Your task to perform on an android device: Play the last video I watched on Youtube Image 0: 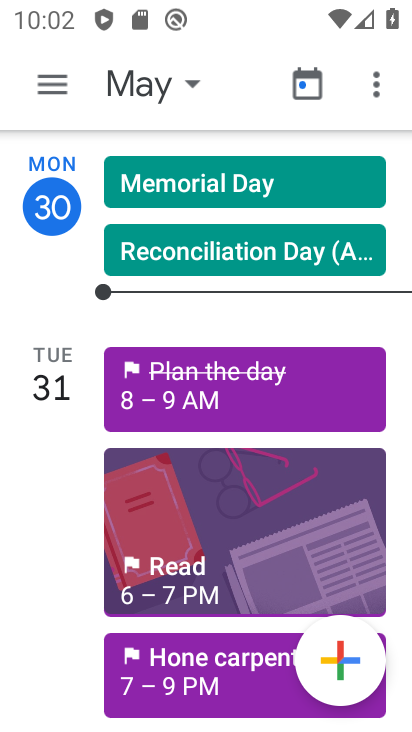
Step 0: press home button
Your task to perform on an android device: Play the last video I watched on Youtube Image 1: 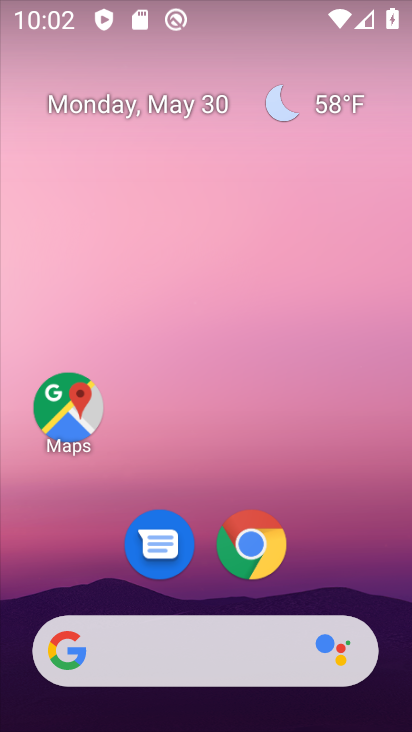
Step 1: drag from (329, 549) to (226, 15)
Your task to perform on an android device: Play the last video I watched on Youtube Image 2: 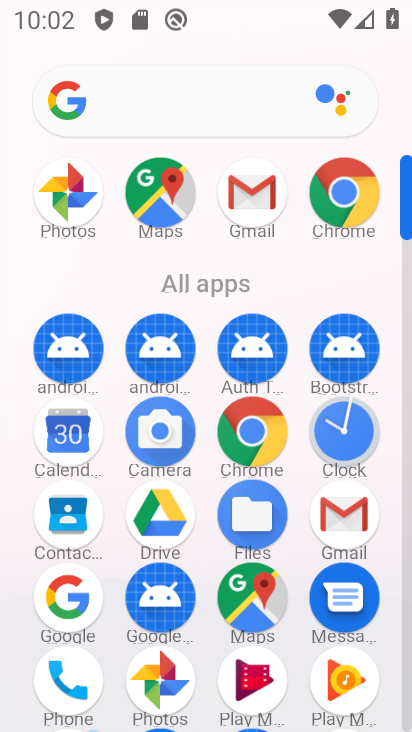
Step 2: click (407, 699)
Your task to perform on an android device: Play the last video I watched on Youtube Image 3: 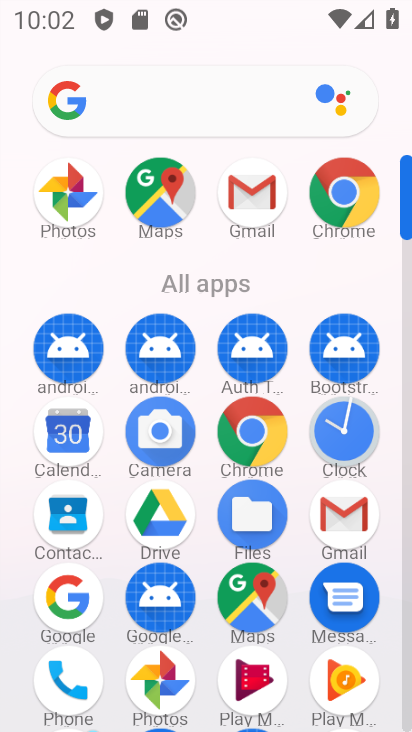
Step 3: click (407, 699)
Your task to perform on an android device: Play the last video I watched on Youtube Image 4: 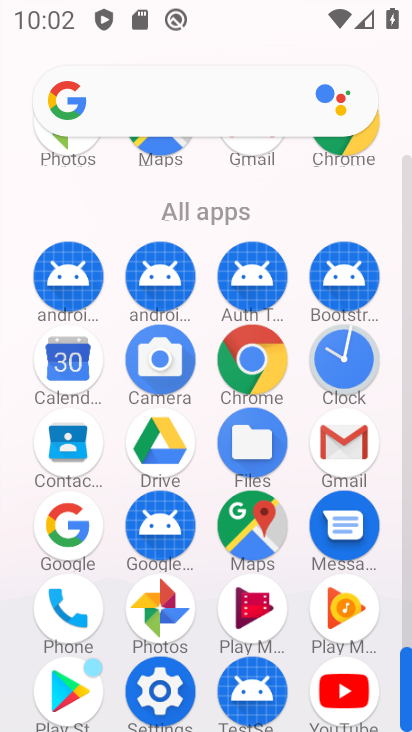
Step 4: click (373, 699)
Your task to perform on an android device: Play the last video I watched on Youtube Image 5: 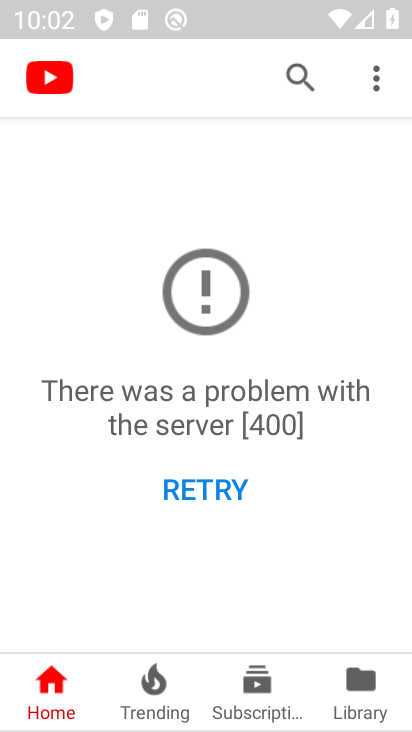
Step 5: task complete